Your task to perform on an android device: toggle show notifications on the lock screen Image 0: 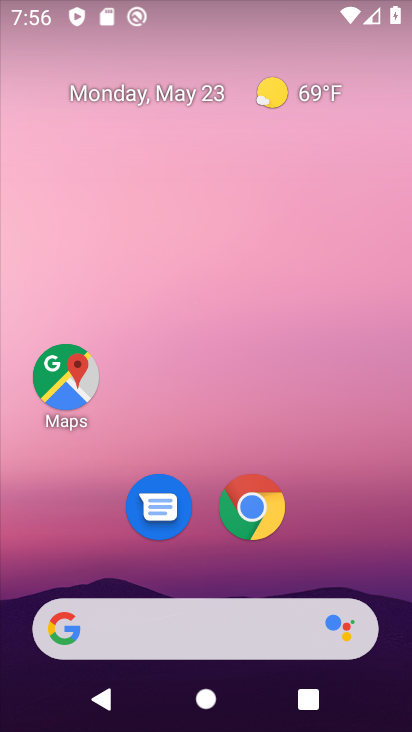
Step 0: drag from (339, 600) to (377, 60)
Your task to perform on an android device: toggle show notifications on the lock screen Image 1: 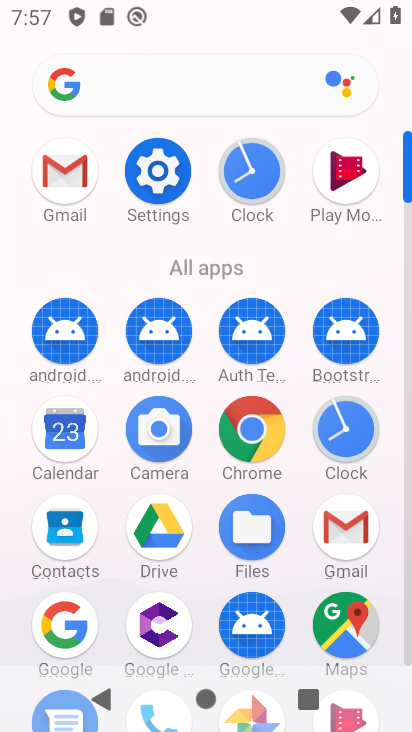
Step 1: click (158, 168)
Your task to perform on an android device: toggle show notifications on the lock screen Image 2: 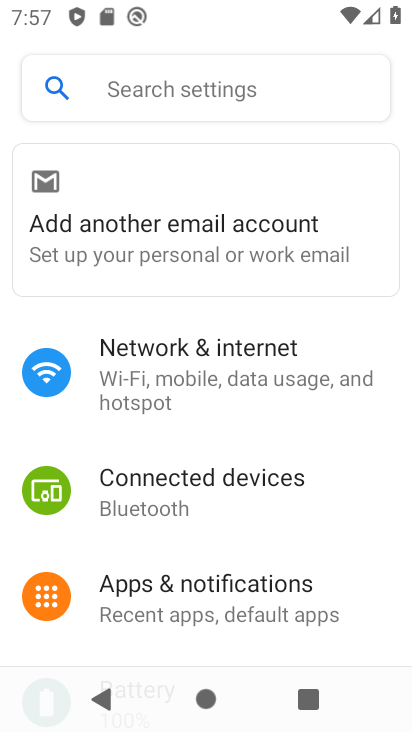
Step 2: drag from (354, 570) to (370, 319)
Your task to perform on an android device: toggle show notifications on the lock screen Image 3: 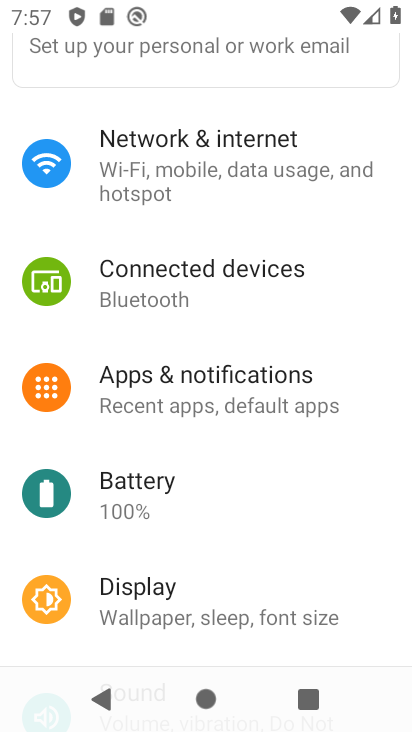
Step 3: click (180, 383)
Your task to perform on an android device: toggle show notifications on the lock screen Image 4: 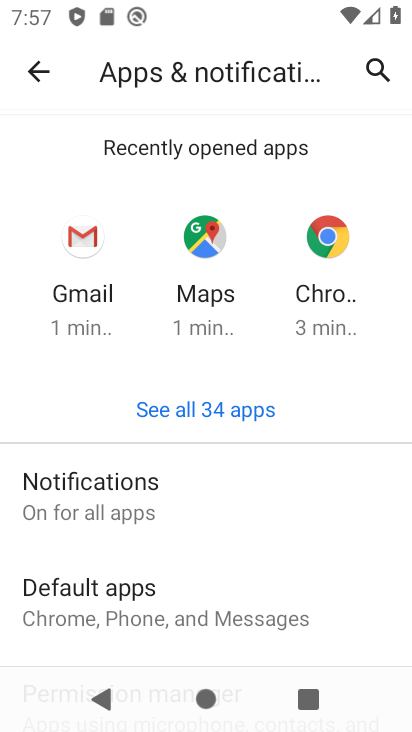
Step 4: drag from (214, 540) to (231, 357)
Your task to perform on an android device: toggle show notifications on the lock screen Image 5: 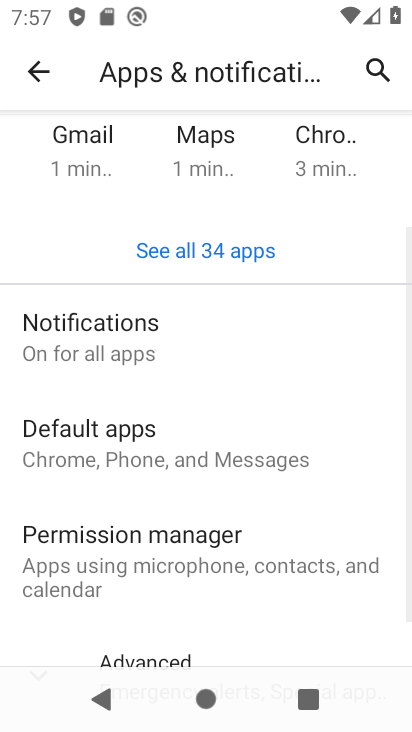
Step 5: click (101, 336)
Your task to perform on an android device: toggle show notifications on the lock screen Image 6: 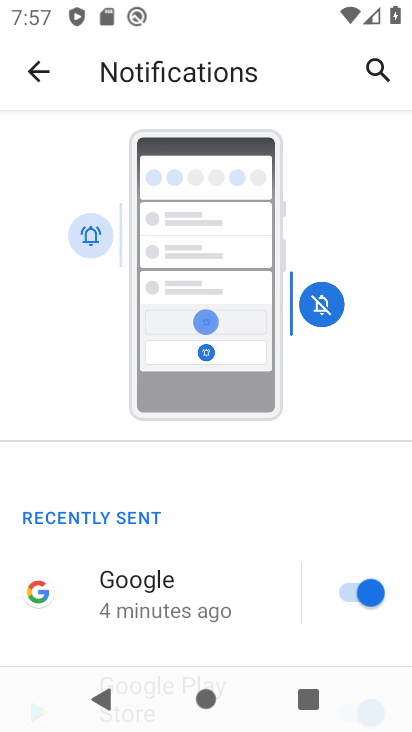
Step 6: drag from (190, 555) to (202, 237)
Your task to perform on an android device: toggle show notifications on the lock screen Image 7: 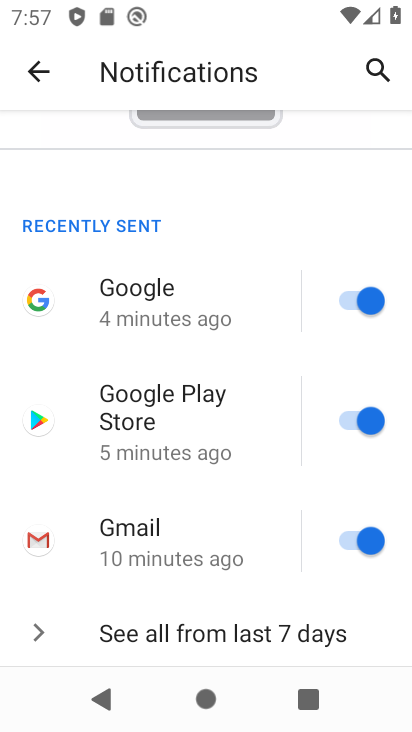
Step 7: drag from (157, 525) to (178, 180)
Your task to perform on an android device: toggle show notifications on the lock screen Image 8: 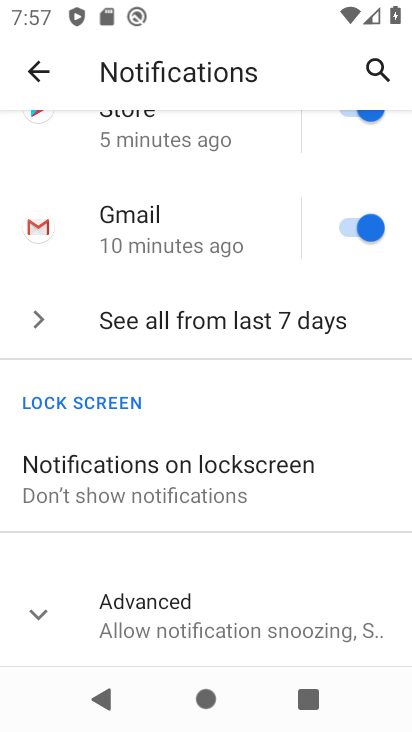
Step 8: click (126, 474)
Your task to perform on an android device: toggle show notifications on the lock screen Image 9: 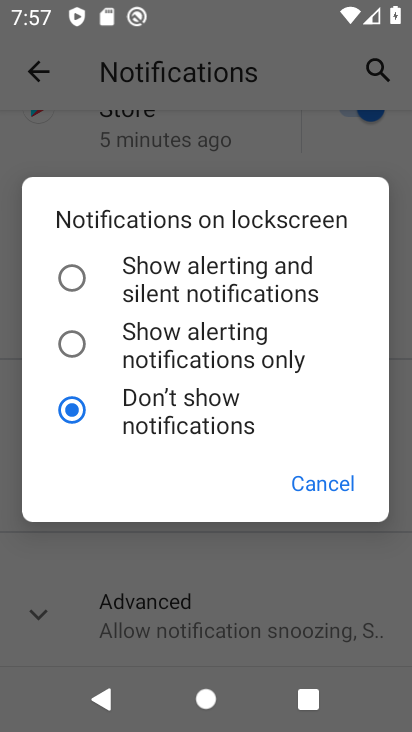
Step 9: click (69, 279)
Your task to perform on an android device: toggle show notifications on the lock screen Image 10: 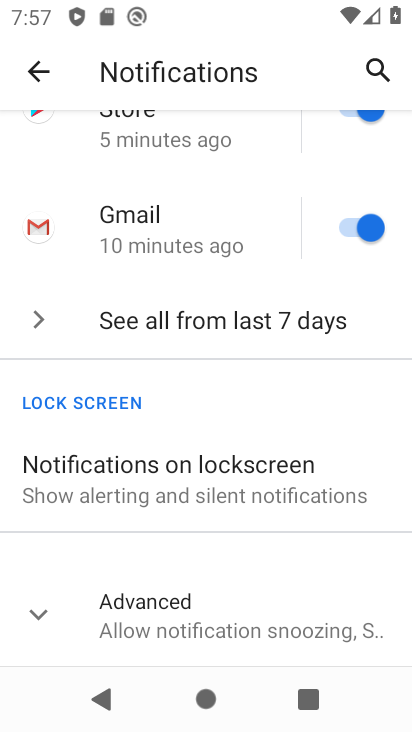
Step 10: task complete